Your task to perform on an android device: turn on translation in the chrome app Image 0: 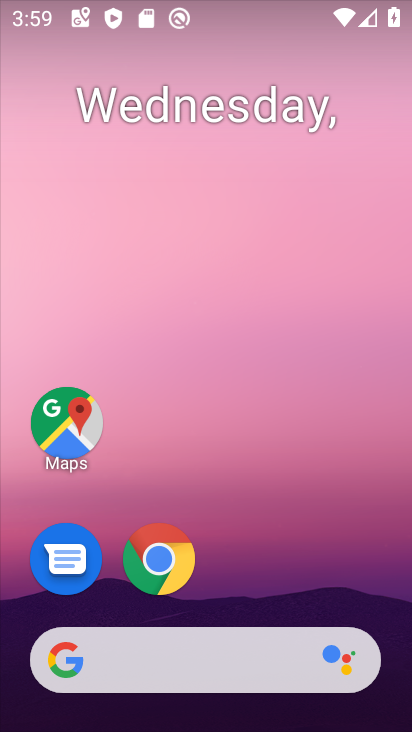
Step 0: click (157, 564)
Your task to perform on an android device: turn on translation in the chrome app Image 1: 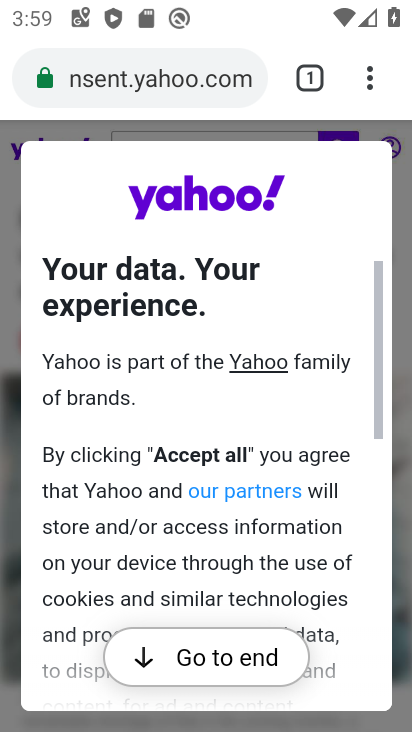
Step 1: drag from (363, 84) to (131, 610)
Your task to perform on an android device: turn on translation in the chrome app Image 2: 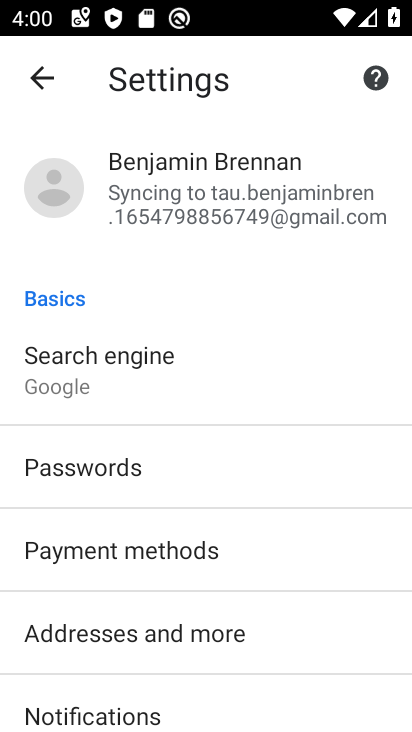
Step 2: drag from (180, 654) to (249, 167)
Your task to perform on an android device: turn on translation in the chrome app Image 3: 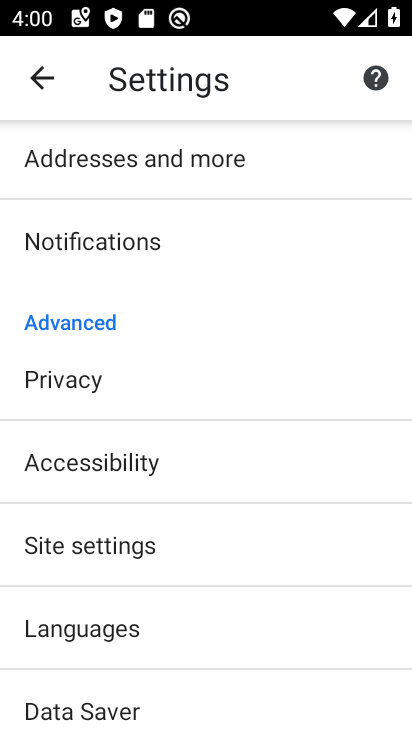
Step 3: click (97, 624)
Your task to perform on an android device: turn on translation in the chrome app Image 4: 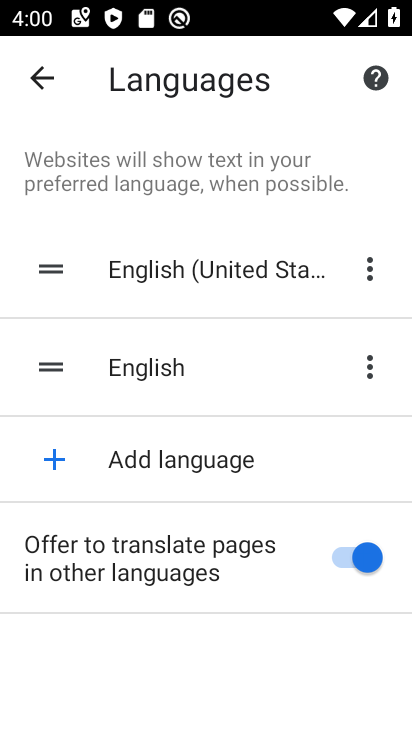
Step 4: task complete